Your task to perform on an android device: Open location settings Image 0: 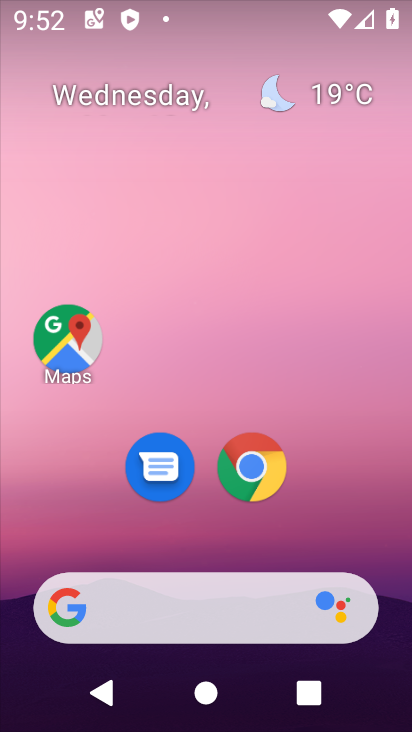
Step 0: drag from (300, 544) to (170, 91)
Your task to perform on an android device: Open location settings Image 1: 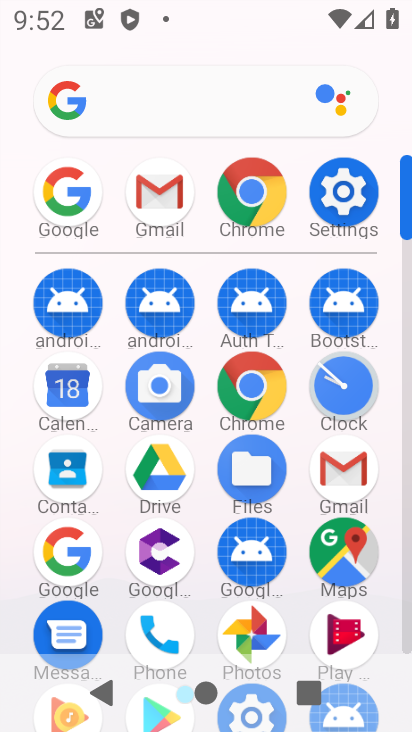
Step 1: click (328, 202)
Your task to perform on an android device: Open location settings Image 2: 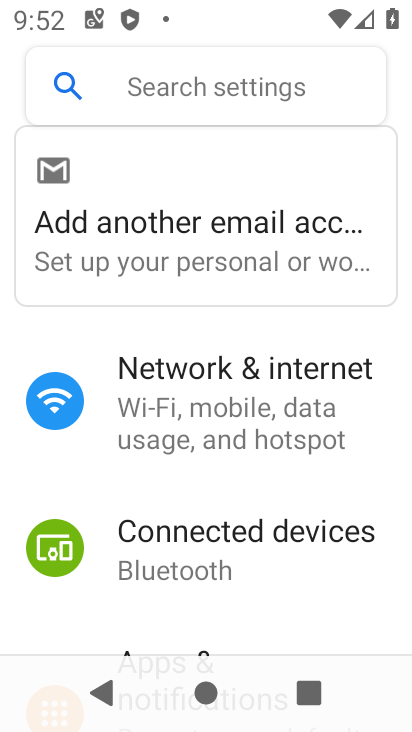
Step 2: drag from (267, 584) to (209, 142)
Your task to perform on an android device: Open location settings Image 3: 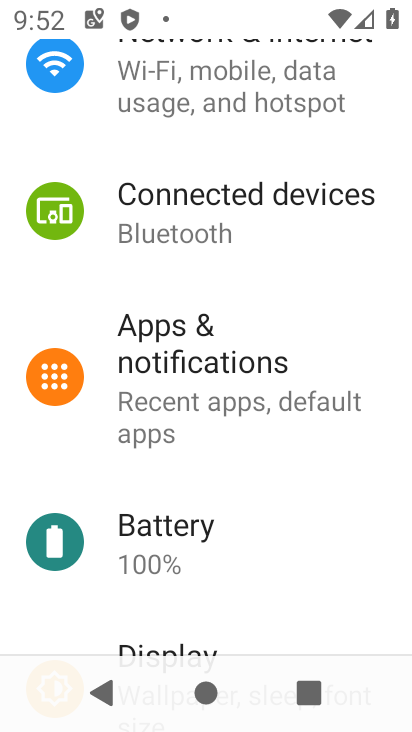
Step 3: drag from (254, 534) to (224, 122)
Your task to perform on an android device: Open location settings Image 4: 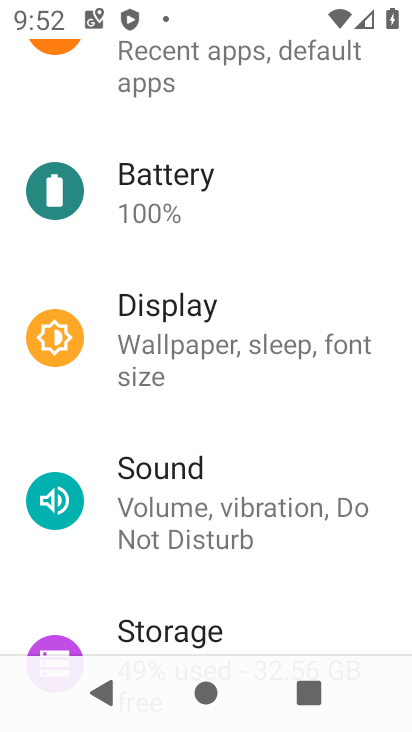
Step 4: drag from (209, 564) to (217, 159)
Your task to perform on an android device: Open location settings Image 5: 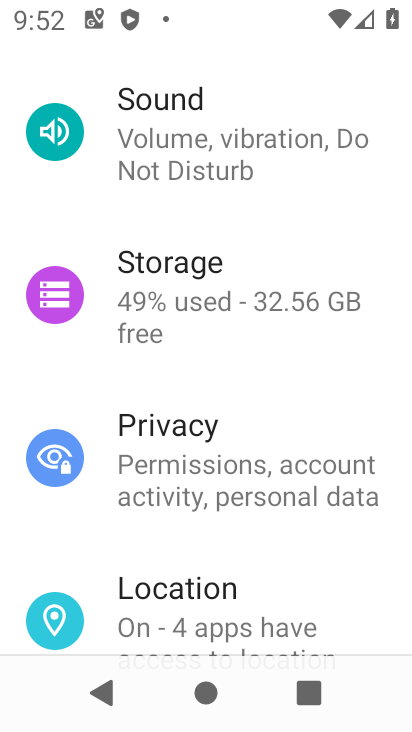
Step 5: click (204, 580)
Your task to perform on an android device: Open location settings Image 6: 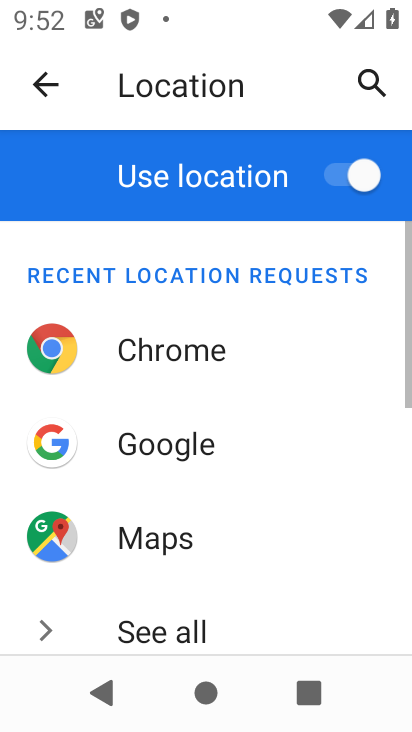
Step 6: task complete